Your task to perform on an android device: install app "Google Calendar" Image 0: 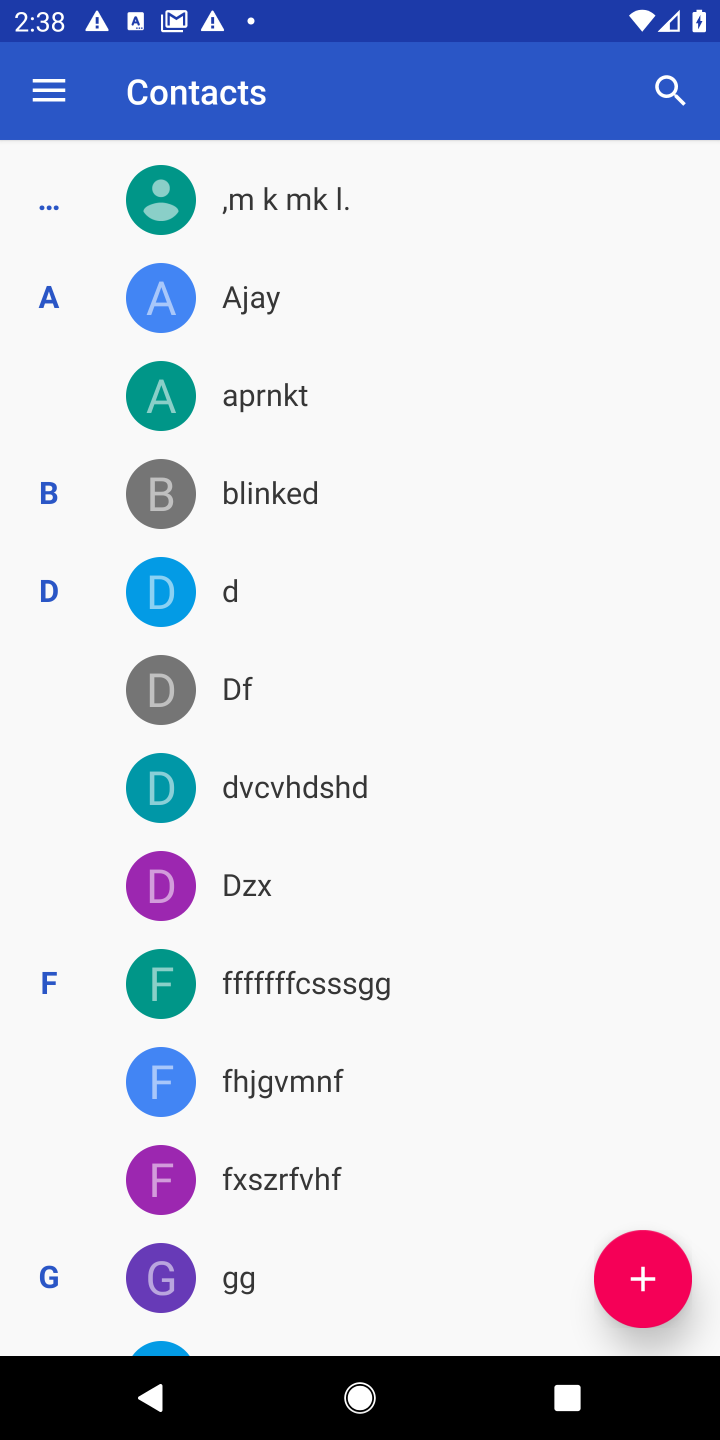
Step 0: press home button
Your task to perform on an android device: install app "Google Calendar" Image 1: 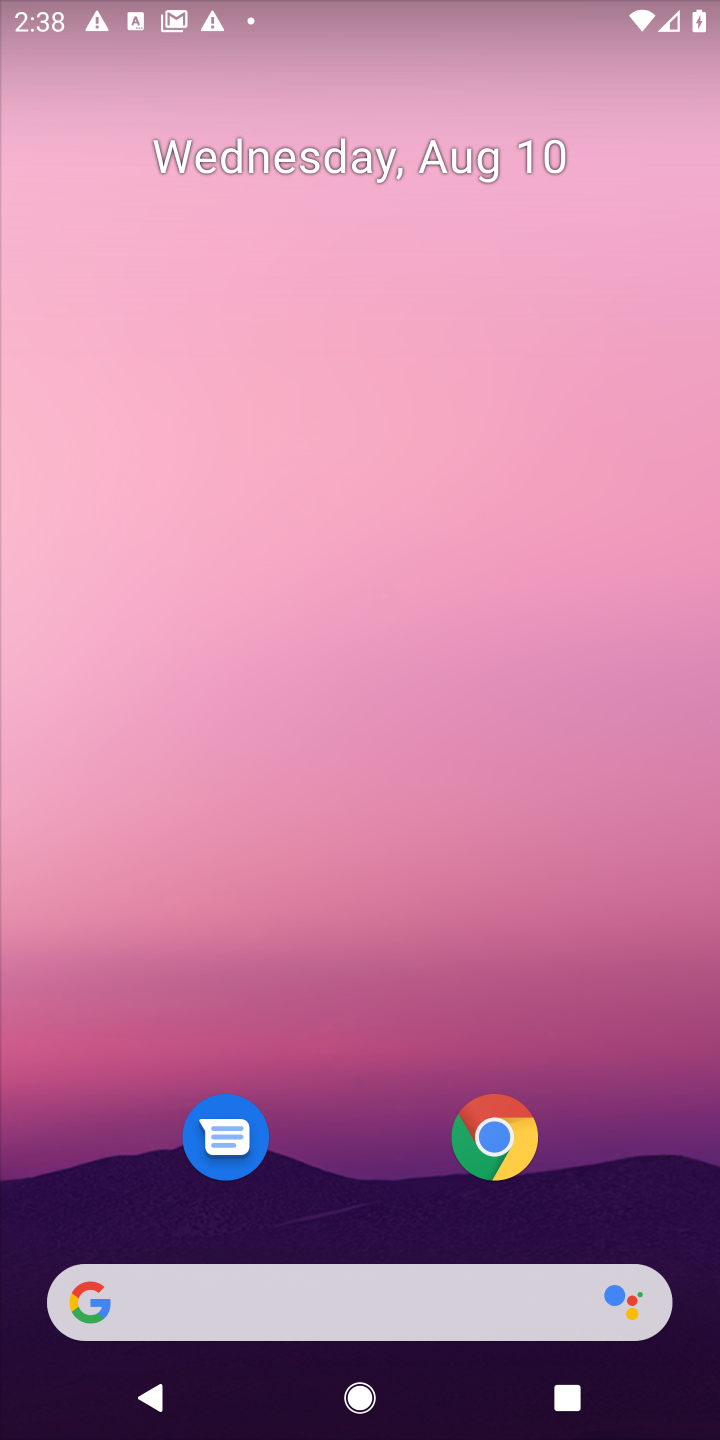
Step 1: drag from (311, 882) to (448, 23)
Your task to perform on an android device: install app "Google Calendar" Image 2: 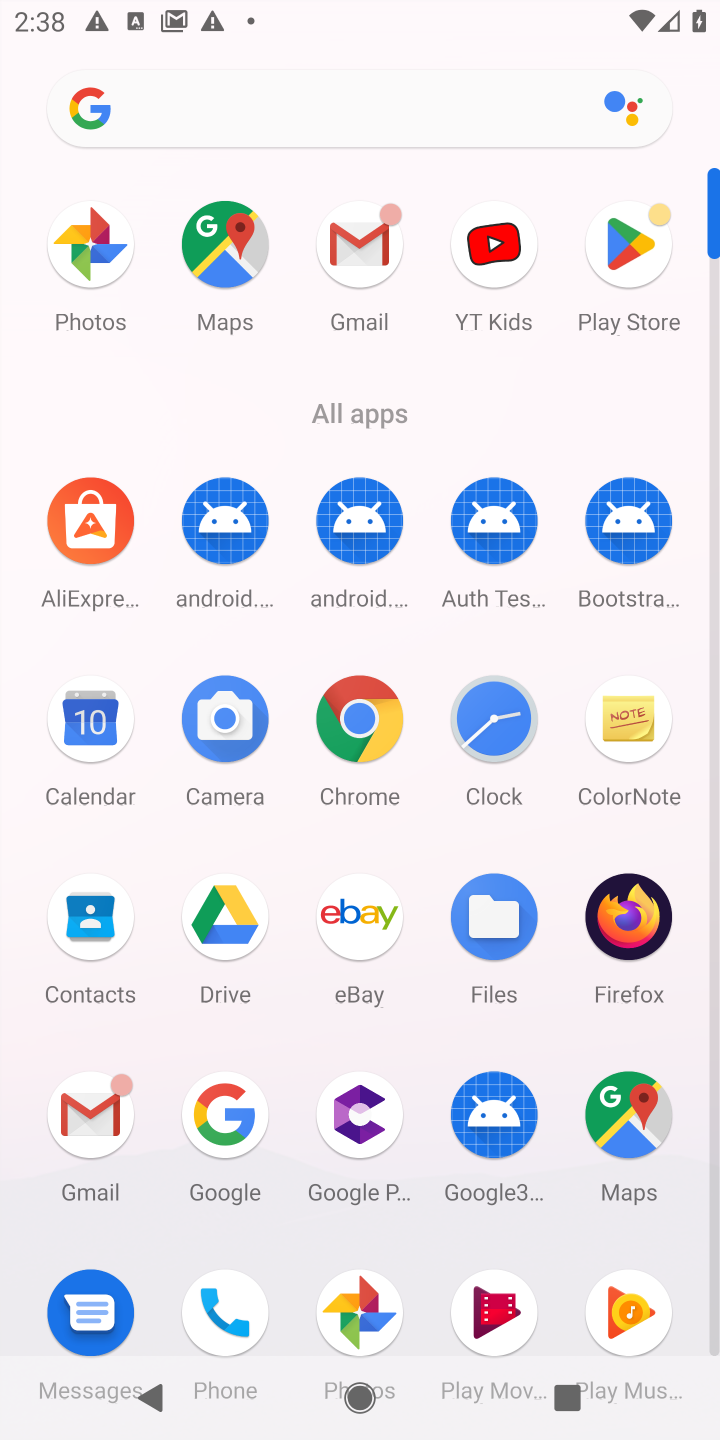
Step 2: click (630, 280)
Your task to perform on an android device: install app "Google Calendar" Image 3: 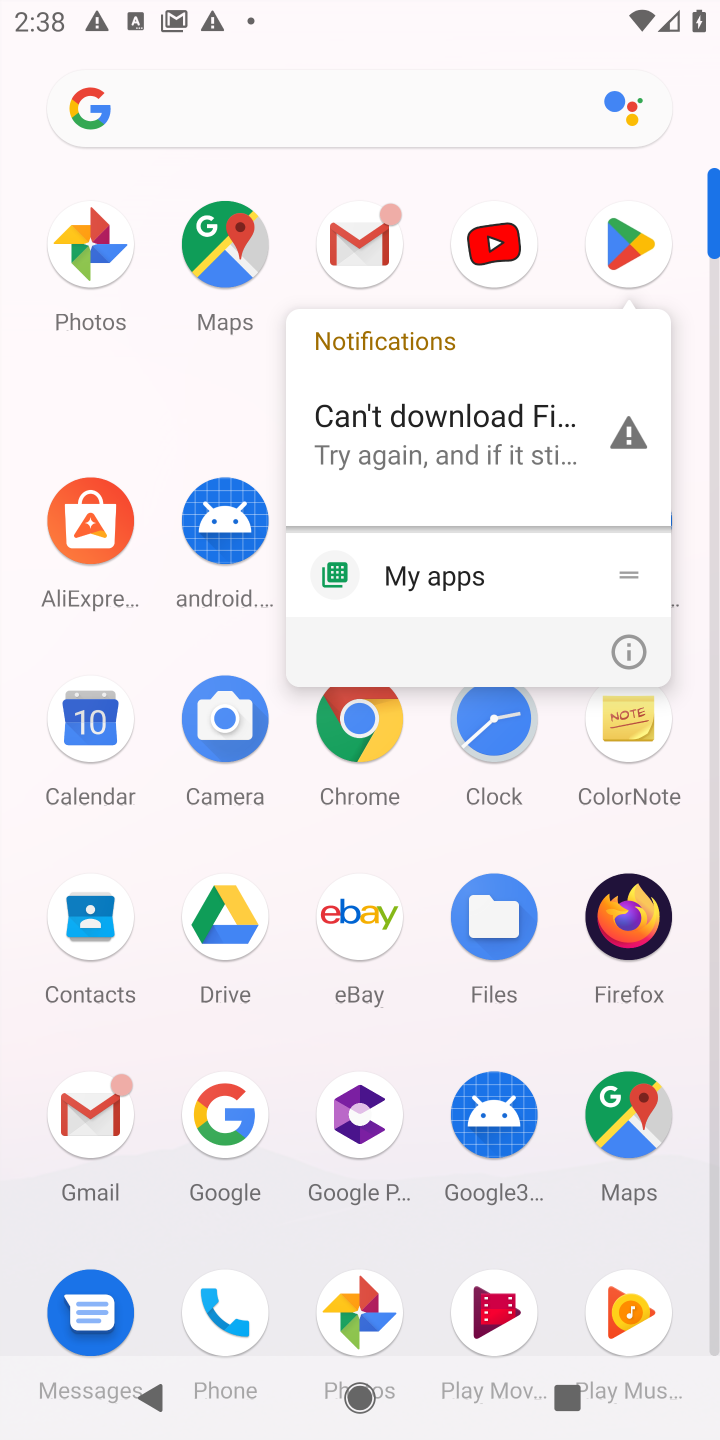
Step 3: click (630, 262)
Your task to perform on an android device: install app "Google Calendar" Image 4: 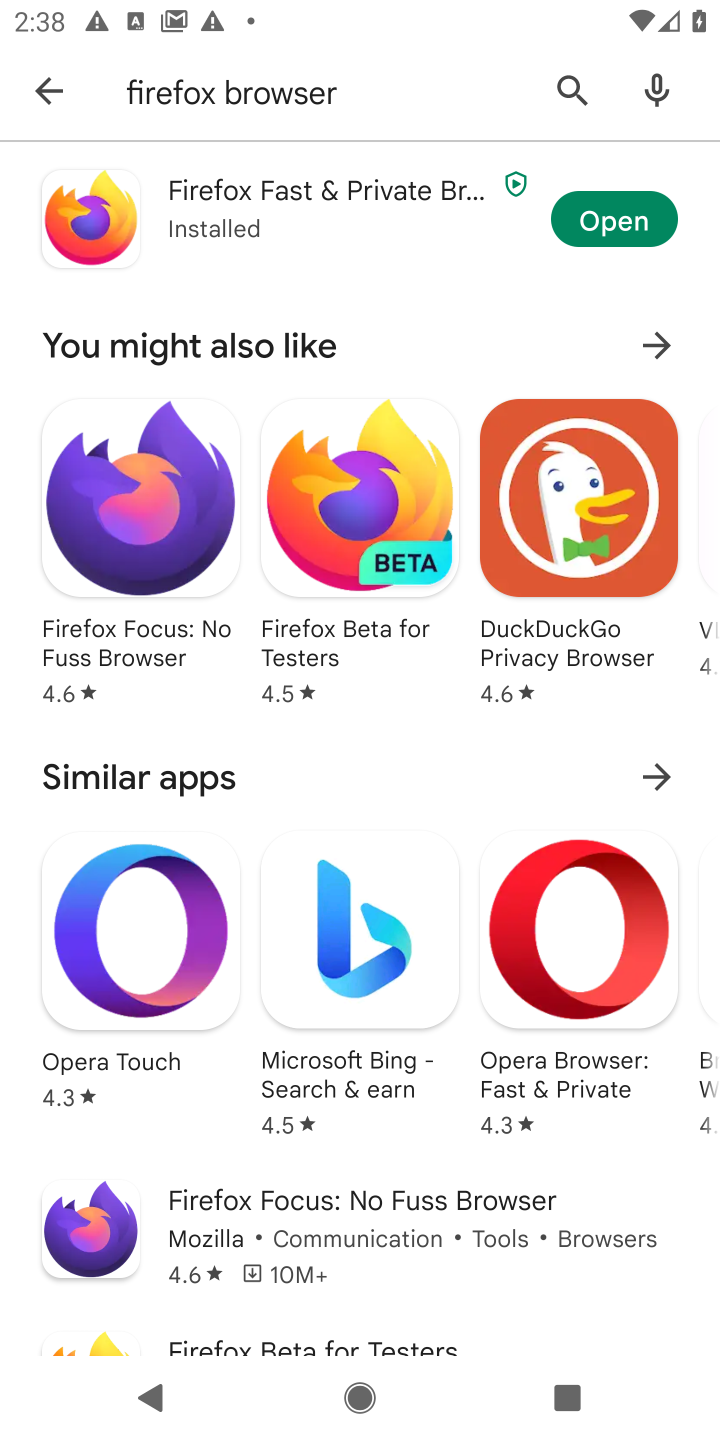
Step 4: click (377, 92)
Your task to perform on an android device: install app "Google Calendar" Image 5: 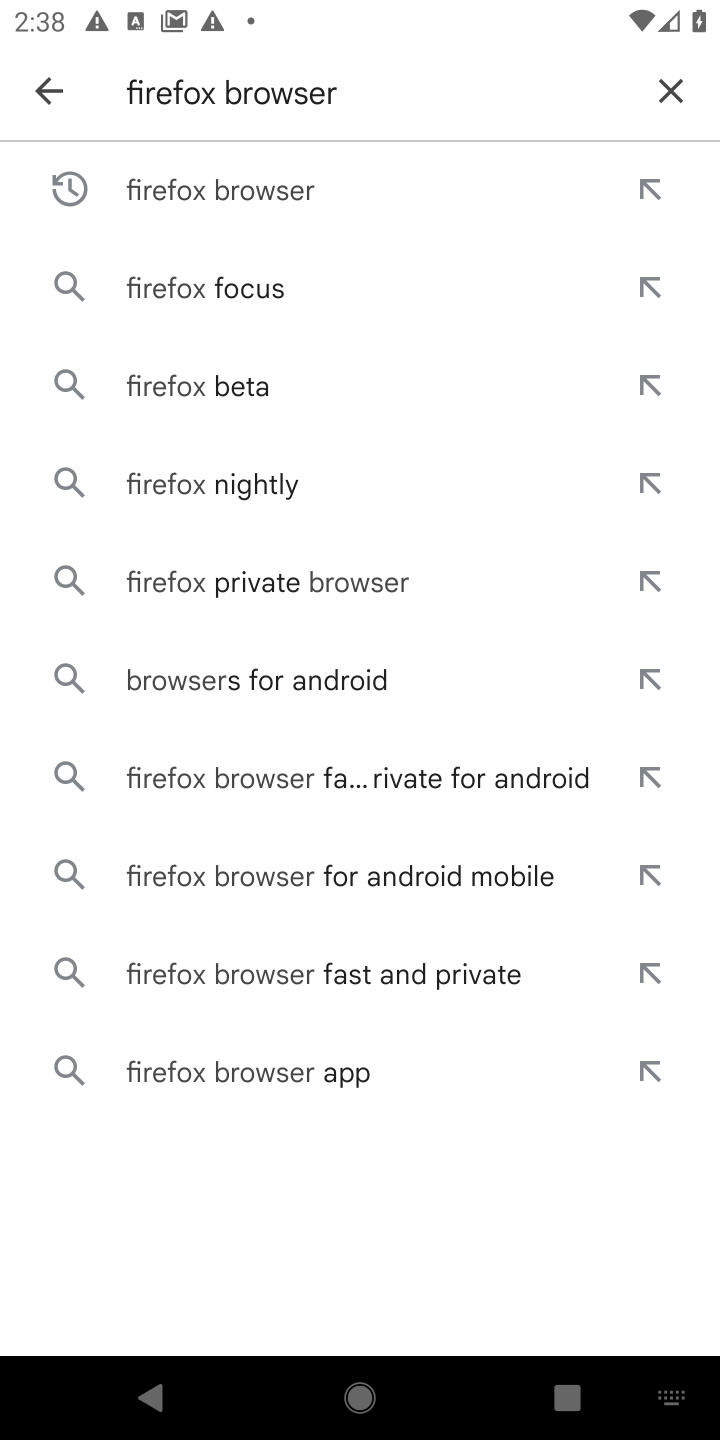
Step 5: click (657, 90)
Your task to perform on an android device: install app "Google Calendar" Image 6: 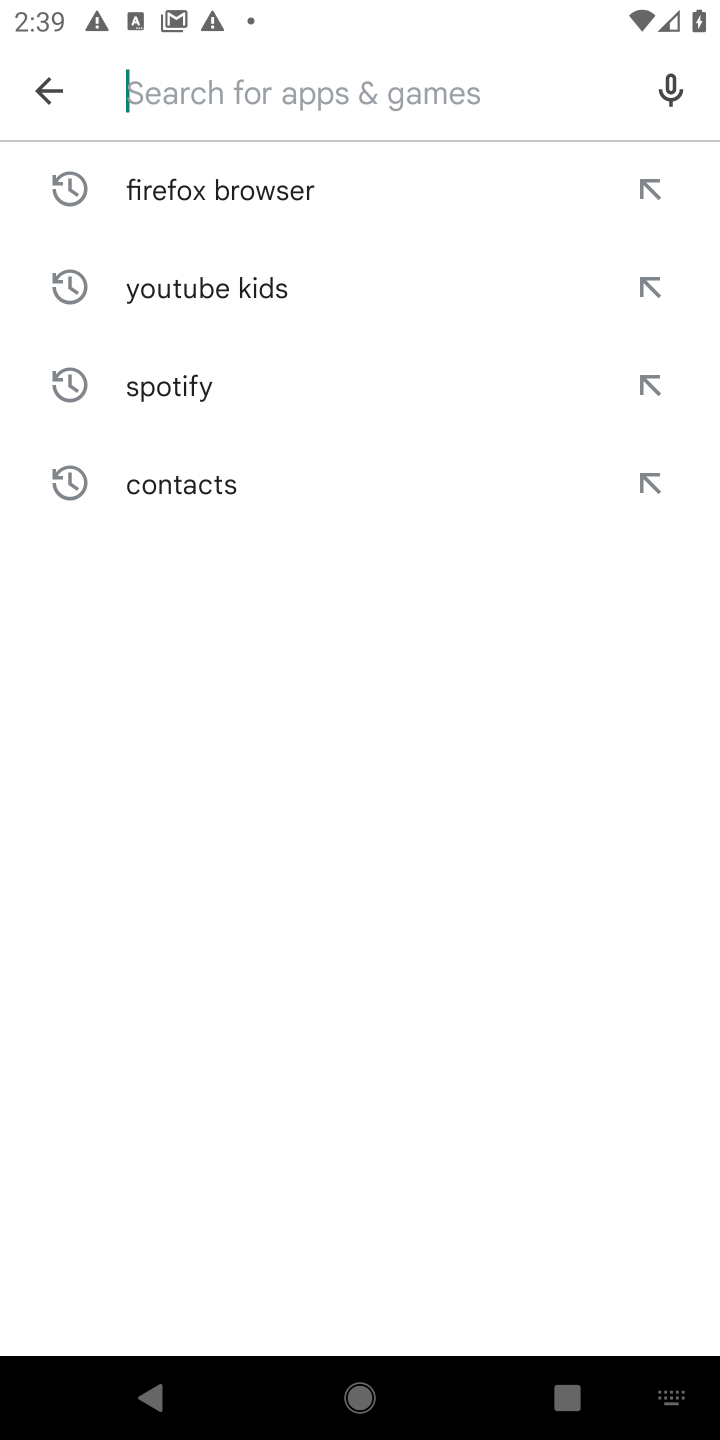
Step 6: type "google calender"
Your task to perform on an android device: install app "Google Calendar" Image 7: 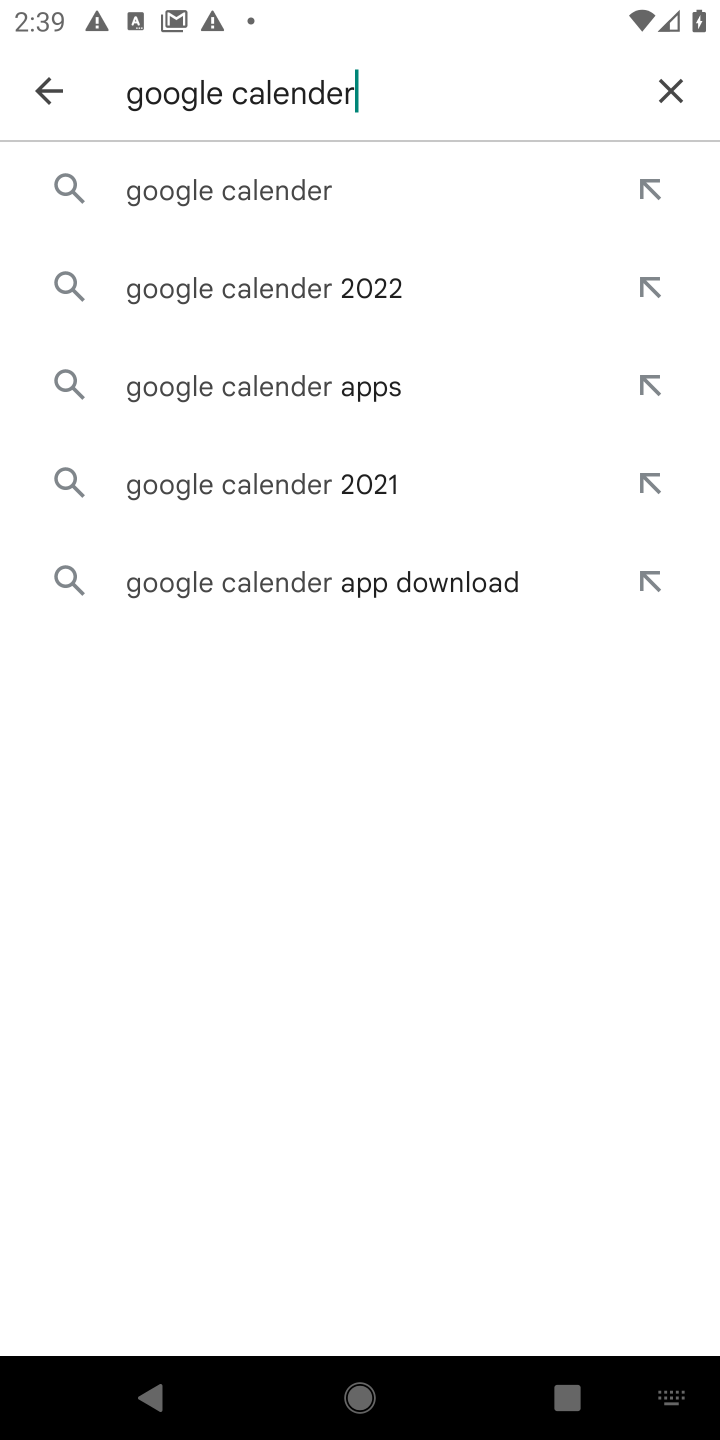
Step 7: click (302, 203)
Your task to perform on an android device: install app "Google Calendar" Image 8: 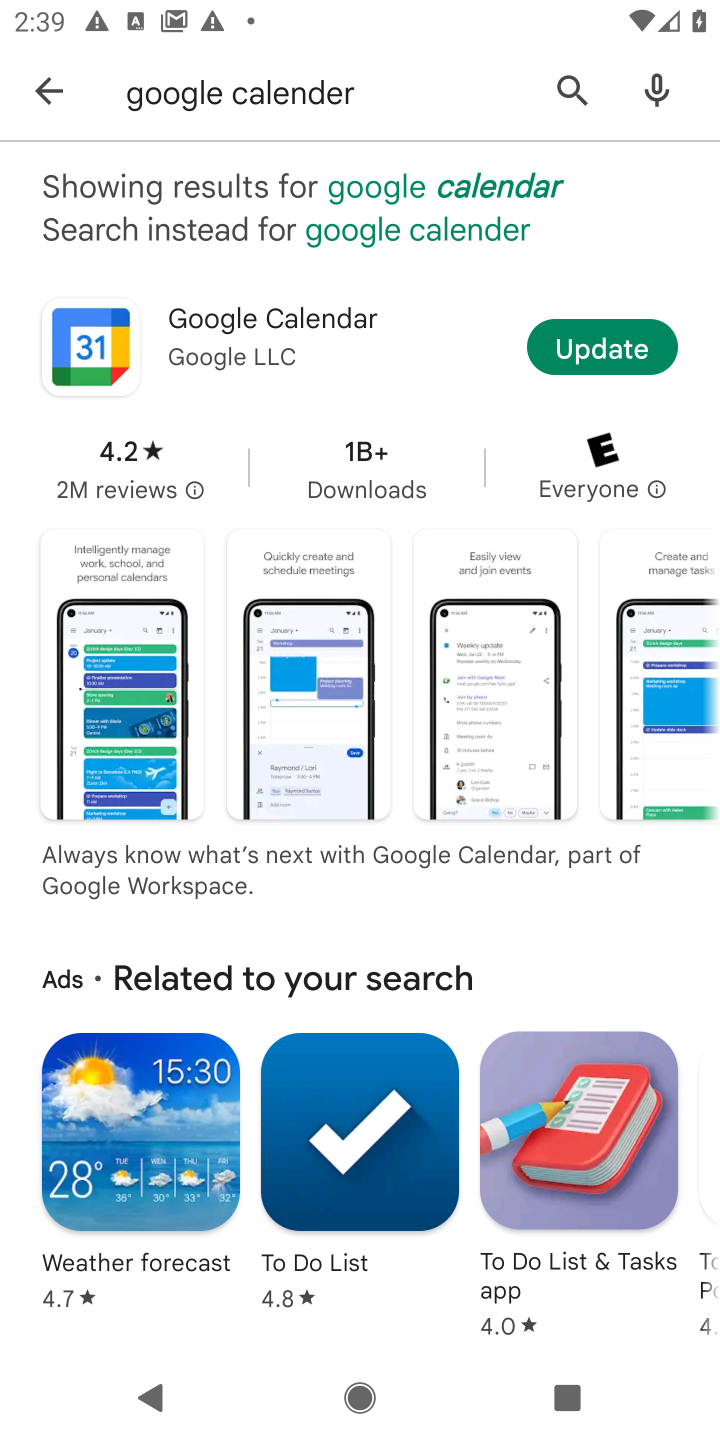
Step 8: click (581, 341)
Your task to perform on an android device: install app "Google Calendar" Image 9: 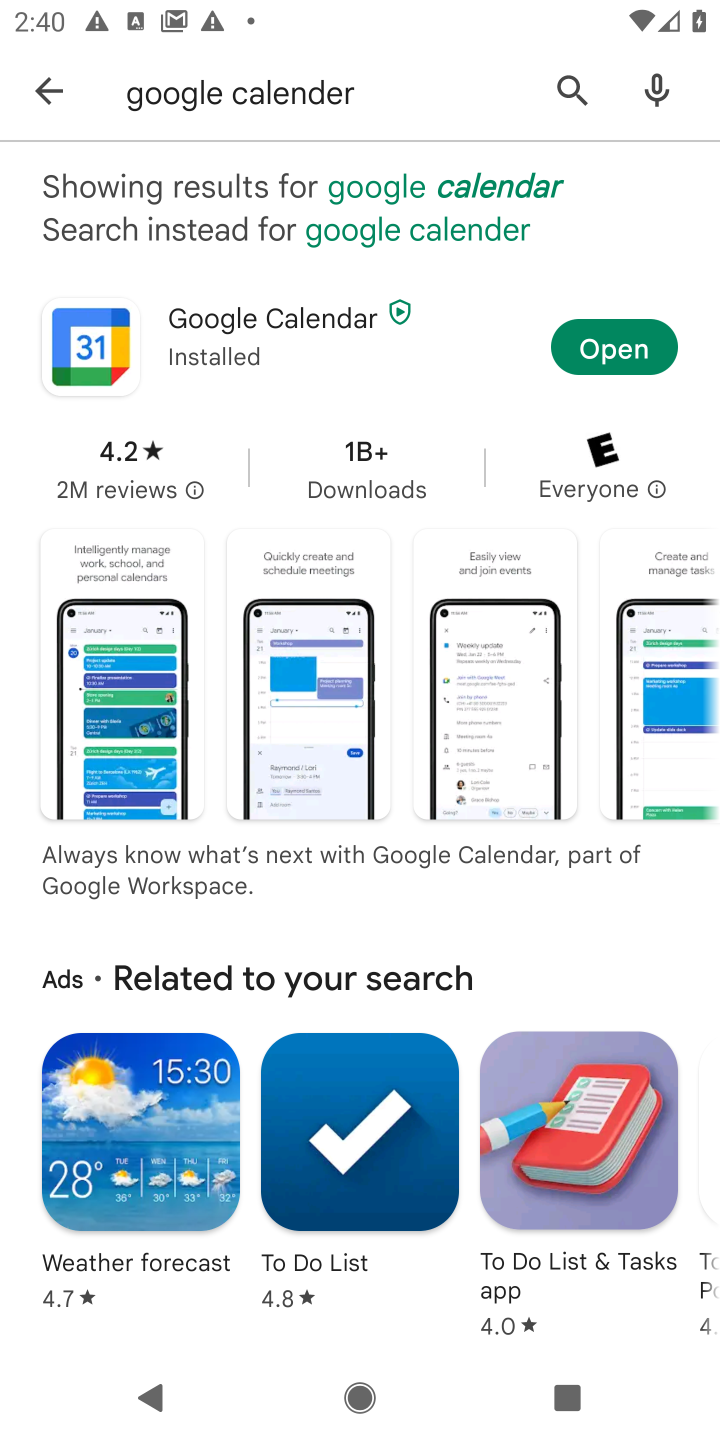
Step 9: task complete